Your task to perform on an android device: Go to calendar. Show me events next week Image 0: 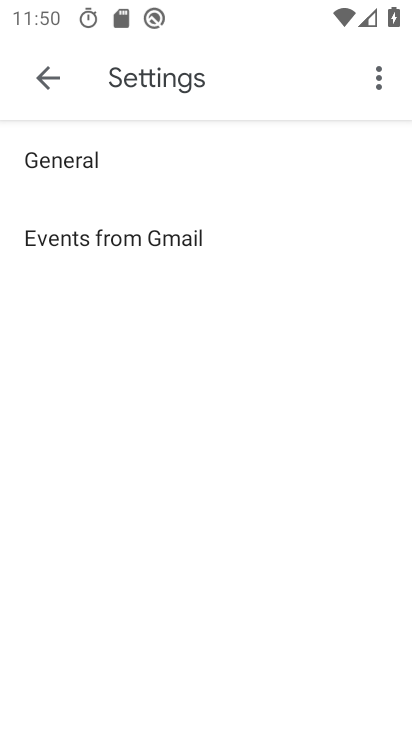
Step 0: press home button
Your task to perform on an android device: Go to calendar. Show me events next week Image 1: 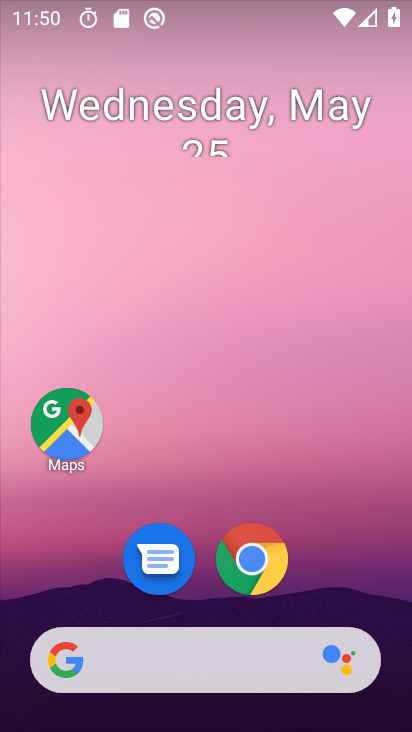
Step 1: drag from (382, 563) to (374, 173)
Your task to perform on an android device: Go to calendar. Show me events next week Image 2: 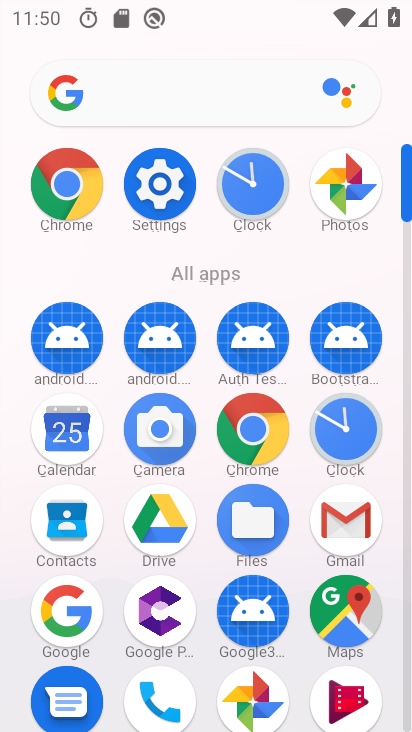
Step 2: click (81, 440)
Your task to perform on an android device: Go to calendar. Show me events next week Image 3: 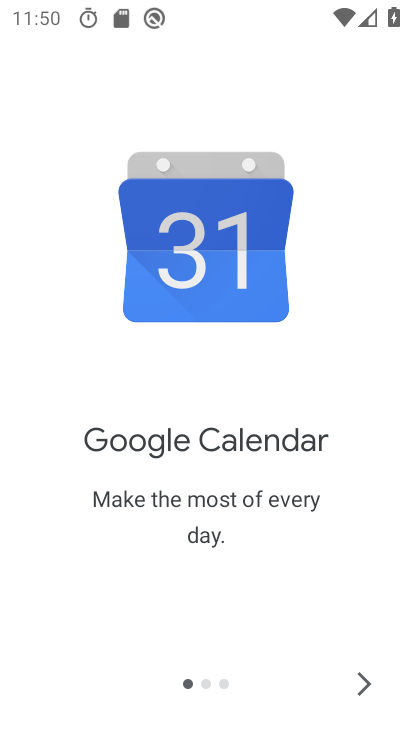
Step 3: click (354, 687)
Your task to perform on an android device: Go to calendar. Show me events next week Image 4: 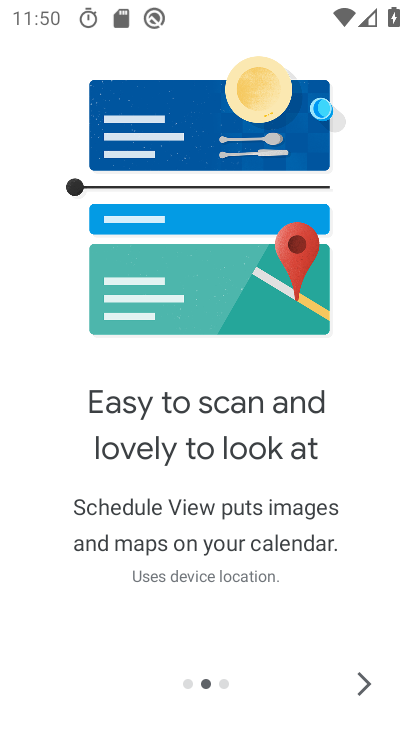
Step 4: click (354, 687)
Your task to perform on an android device: Go to calendar. Show me events next week Image 5: 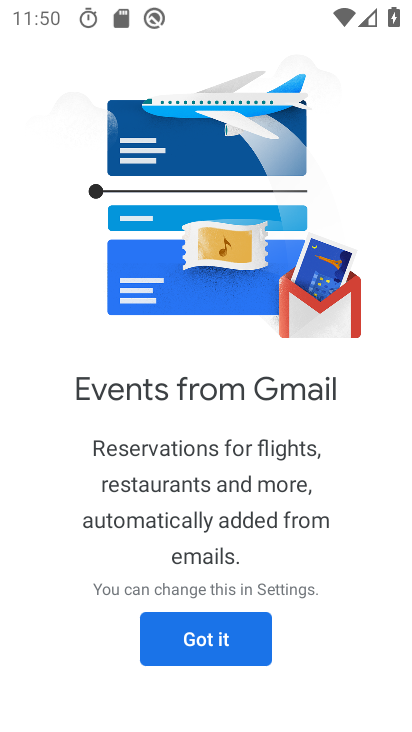
Step 5: click (235, 647)
Your task to perform on an android device: Go to calendar. Show me events next week Image 6: 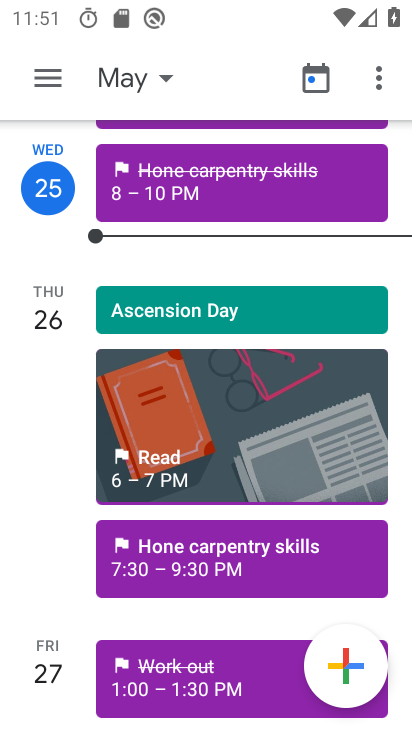
Step 6: task complete